Your task to perform on an android device: Search for hotels in Mexico city Image 0: 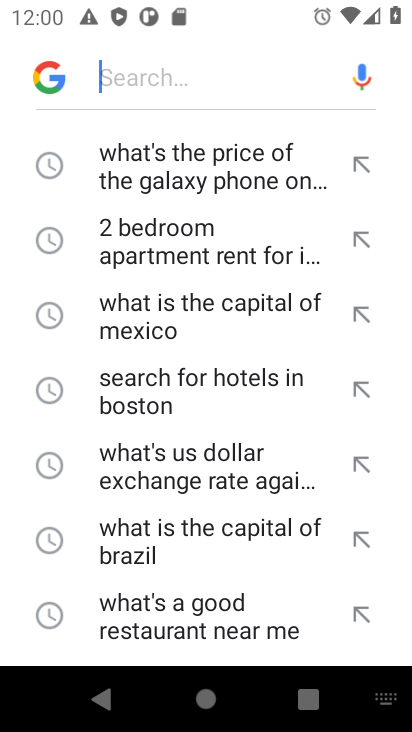
Step 0: press home button
Your task to perform on an android device: Search for hotels in Mexico city Image 1: 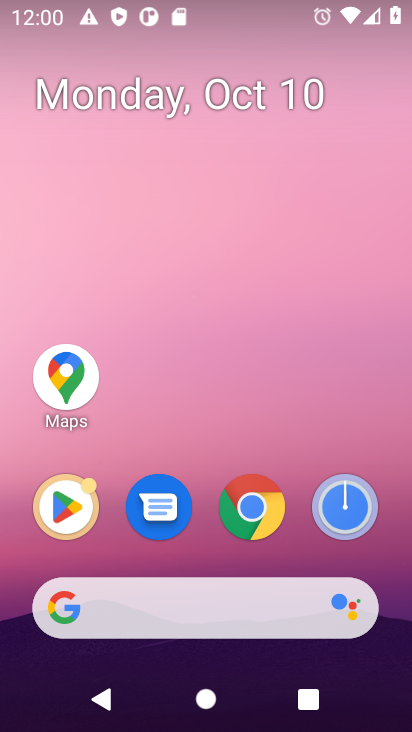
Step 1: click (230, 610)
Your task to perform on an android device: Search for hotels in Mexico city Image 2: 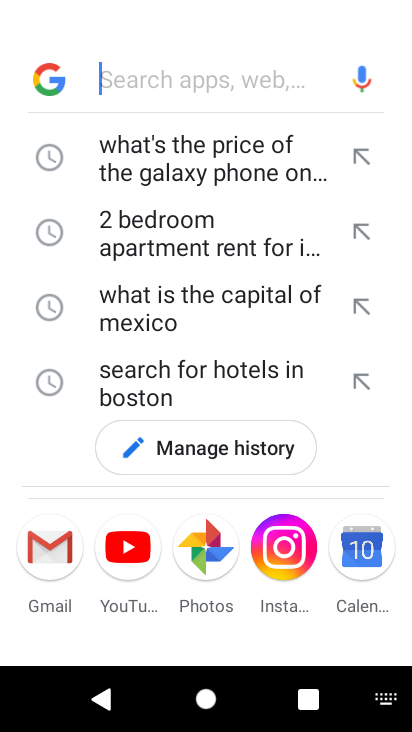
Step 2: type "hotels in Mexico city"
Your task to perform on an android device: Search for hotels in Mexico city Image 3: 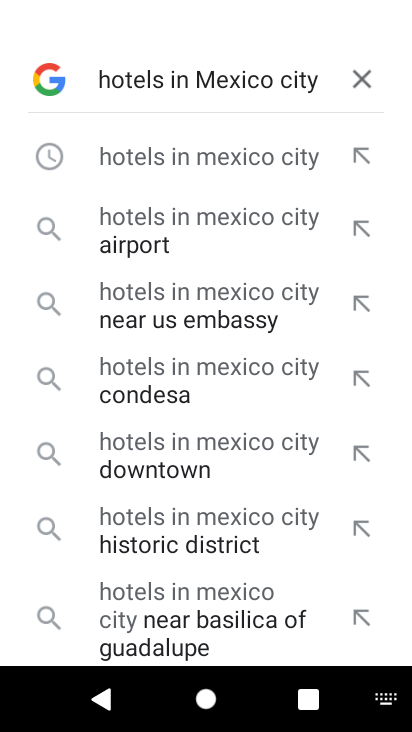
Step 3: press enter
Your task to perform on an android device: Search for hotels in Mexico city Image 4: 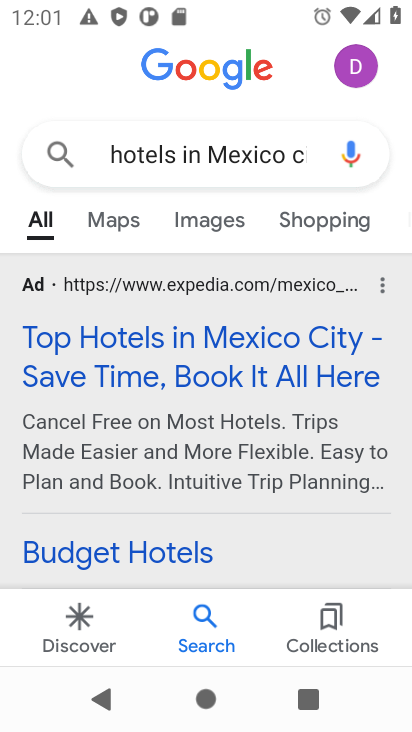
Step 4: drag from (227, 537) to (236, 283)
Your task to perform on an android device: Search for hotels in Mexico city Image 5: 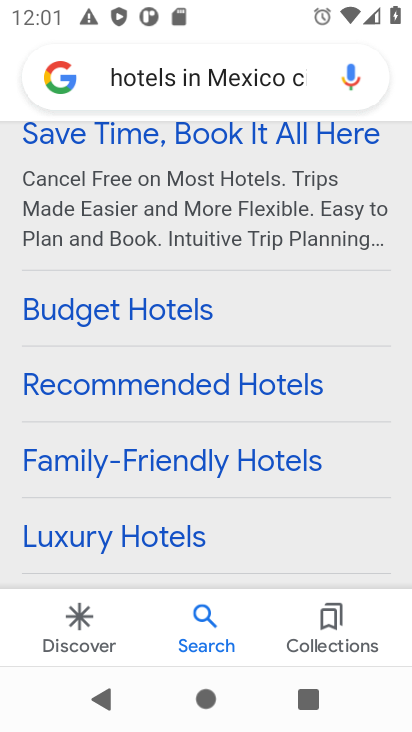
Step 5: click (185, 303)
Your task to perform on an android device: Search for hotels in Mexico city Image 6: 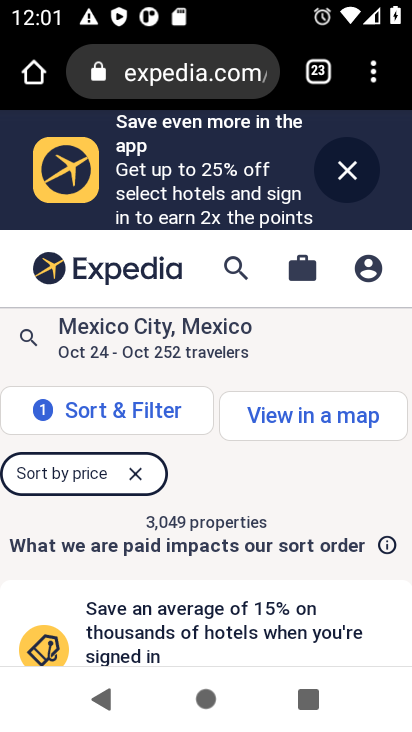
Step 6: task complete